Your task to perform on an android device: Open CNN.com Image 0: 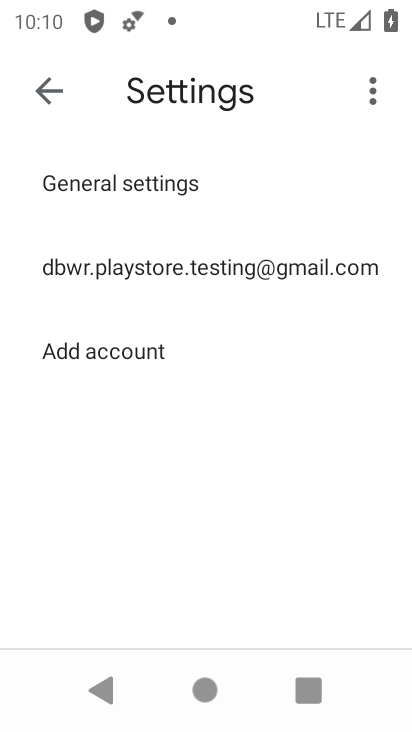
Step 0: press home button
Your task to perform on an android device: Open CNN.com Image 1: 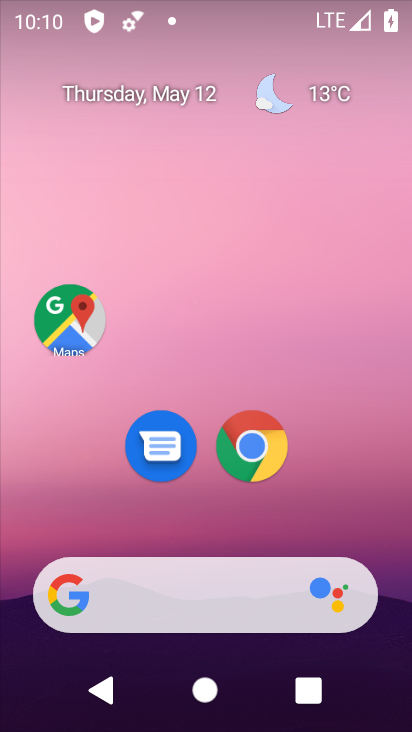
Step 1: drag from (230, 545) to (359, 33)
Your task to perform on an android device: Open CNN.com Image 2: 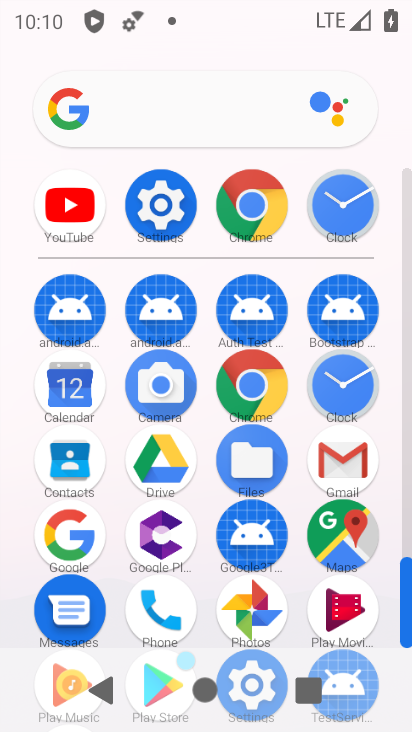
Step 2: click (263, 373)
Your task to perform on an android device: Open CNN.com Image 3: 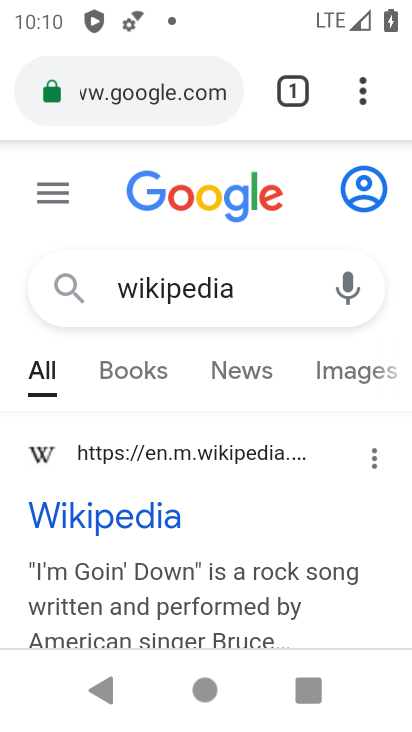
Step 3: click (209, 75)
Your task to perform on an android device: Open CNN.com Image 4: 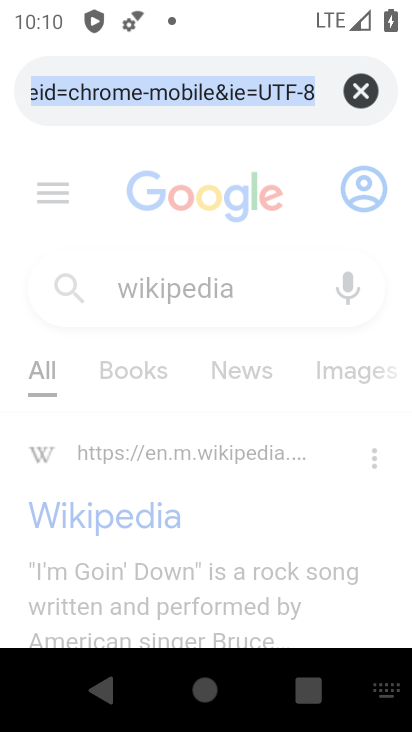
Step 4: click (365, 93)
Your task to perform on an android device: Open CNN.com Image 5: 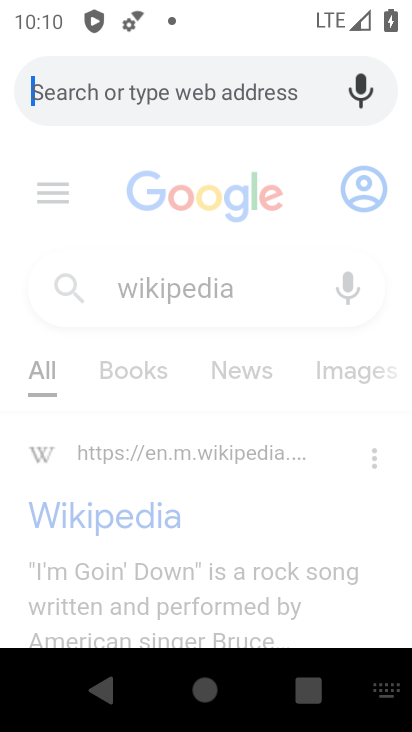
Step 5: type "cnn.com"
Your task to perform on an android device: Open CNN.com Image 6: 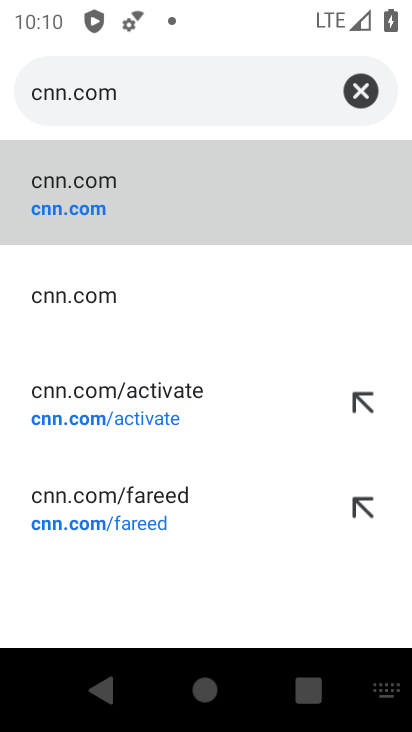
Step 6: click (79, 196)
Your task to perform on an android device: Open CNN.com Image 7: 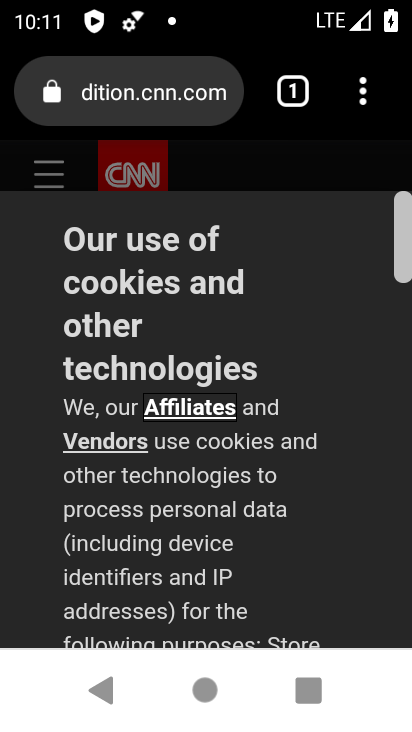
Step 7: task complete